Your task to perform on an android device: open chrome privacy settings Image 0: 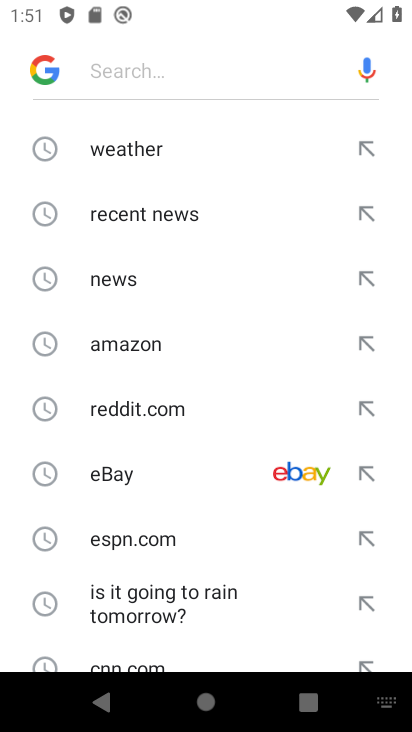
Step 0: press back button
Your task to perform on an android device: open chrome privacy settings Image 1: 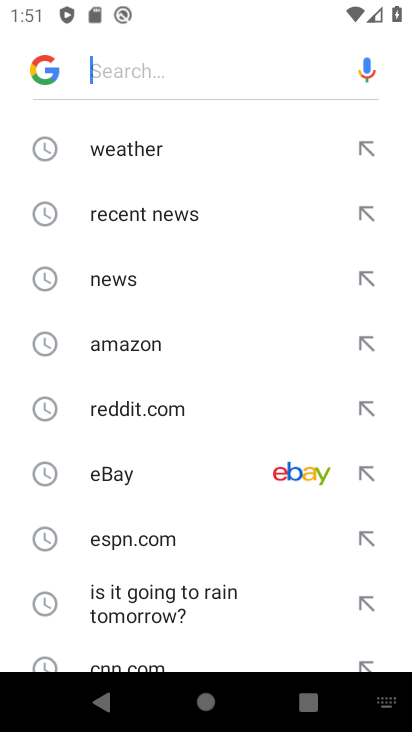
Step 1: press back button
Your task to perform on an android device: open chrome privacy settings Image 2: 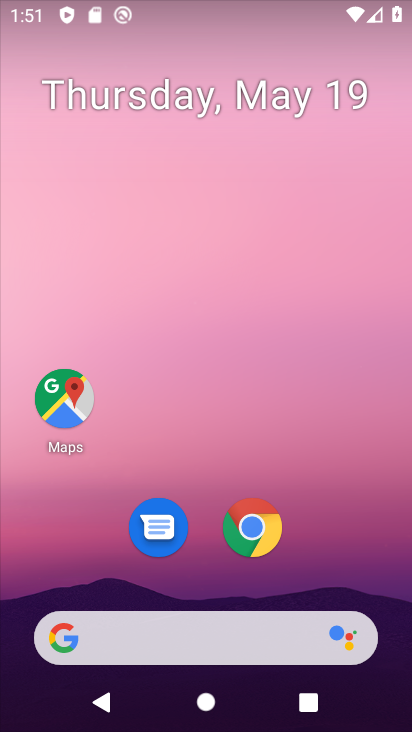
Step 2: click (262, 542)
Your task to perform on an android device: open chrome privacy settings Image 3: 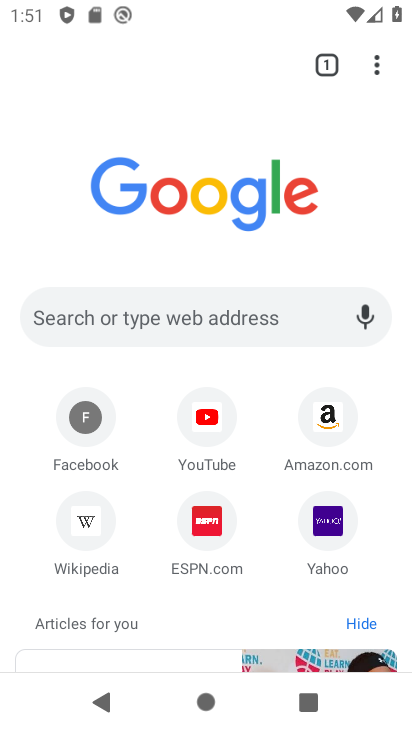
Step 3: click (380, 67)
Your task to perform on an android device: open chrome privacy settings Image 4: 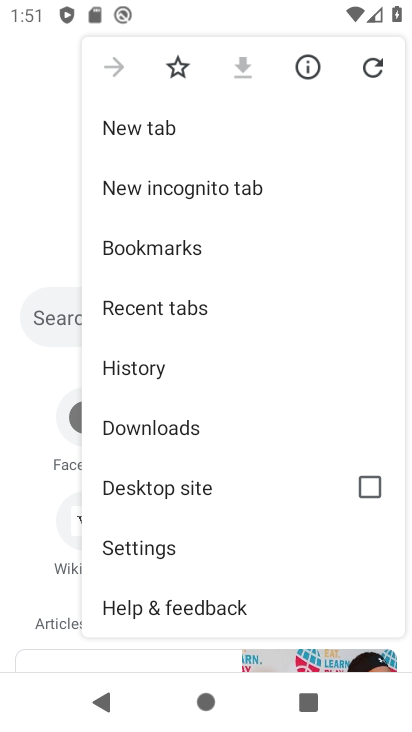
Step 4: click (171, 542)
Your task to perform on an android device: open chrome privacy settings Image 5: 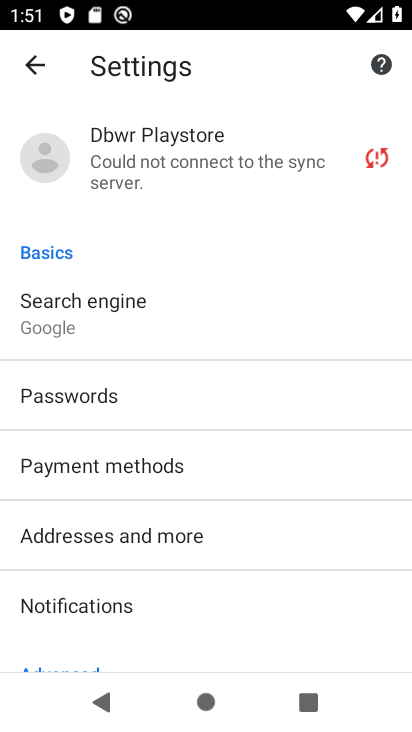
Step 5: drag from (159, 572) to (181, 240)
Your task to perform on an android device: open chrome privacy settings Image 6: 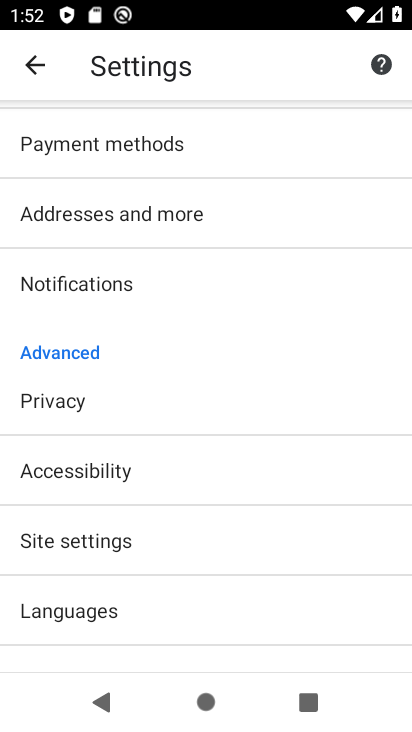
Step 6: click (71, 400)
Your task to perform on an android device: open chrome privacy settings Image 7: 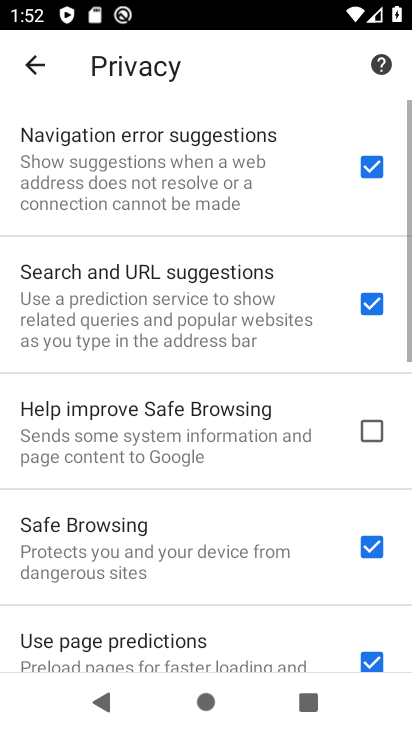
Step 7: task complete